Your task to perform on an android device: turn off location Image 0: 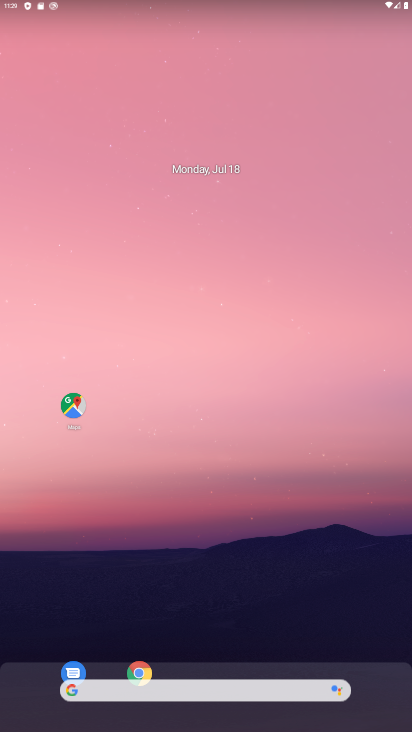
Step 0: drag from (238, 668) to (246, 75)
Your task to perform on an android device: turn off location Image 1: 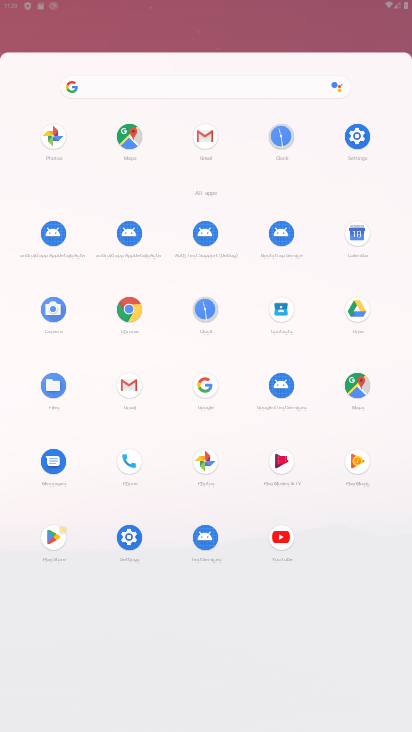
Step 1: drag from (206, 614) to (226, 166)
Your task to perform on an android device: turn off location Image 2: 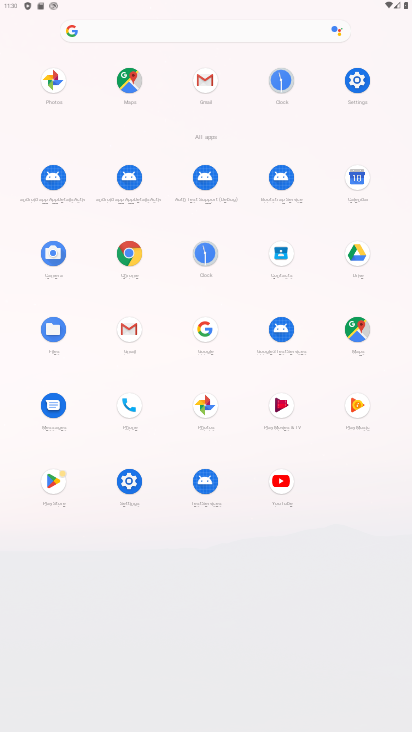
Step 2: click (353, 80)
Your task to perform on an android device: turn off location Image 3: 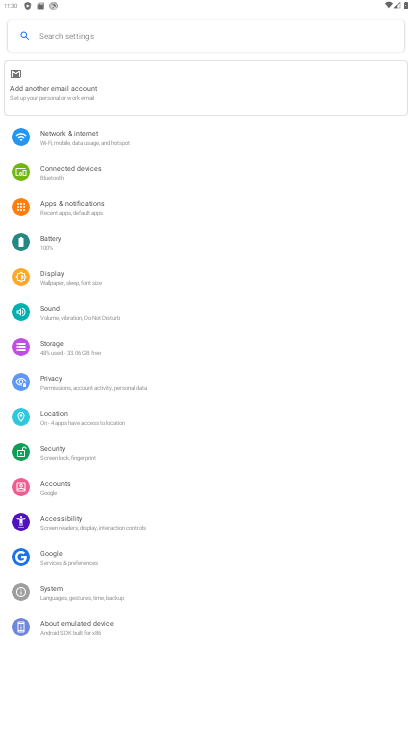
Step 3: click (91, 423)
Your task to perform on an android device: turn off location Image 4: 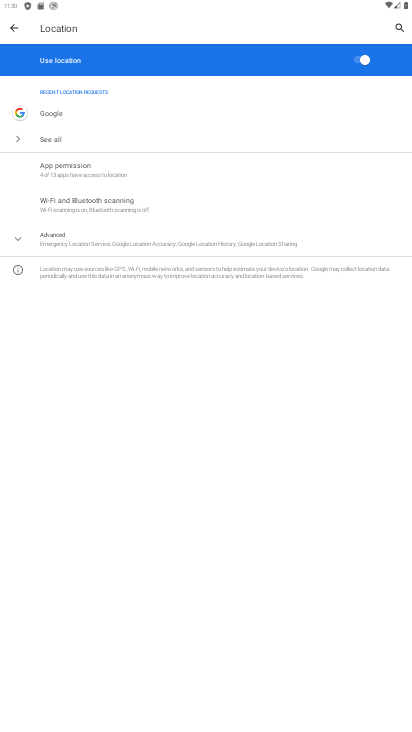
Step 4: click (358, 53)
Your task to perform on an android device: turn off location Image 5: 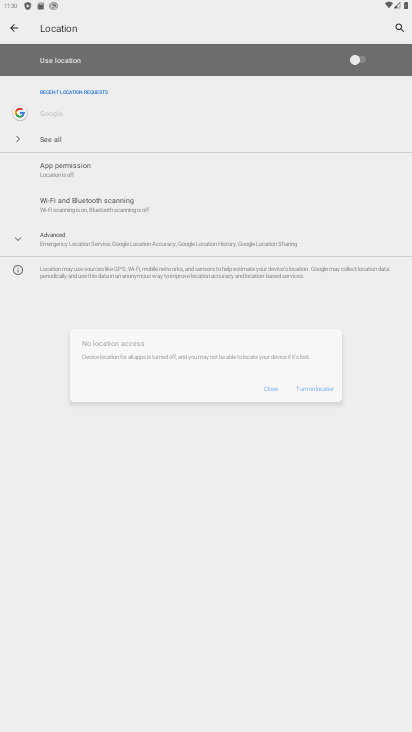
Step 5: task complete